Your task to perform on an android device: Is it going to rain this weekend? Image 0: 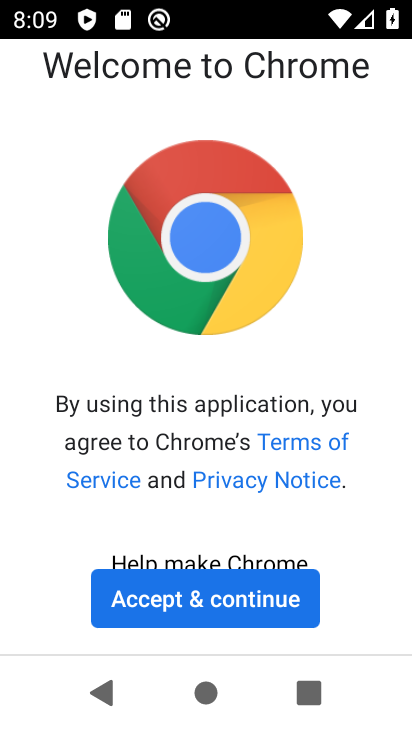
Step 0: click (194, 604)
Your task to perform on an android device: Is it going to rain this weekend? Image 1: 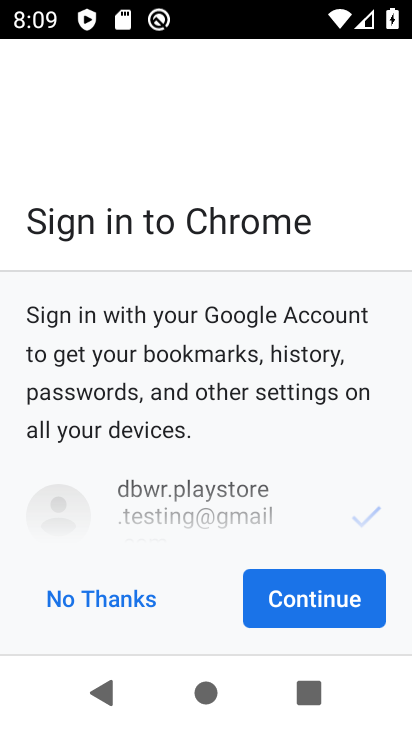
Step 1: click (318, 599)
Your task to perform on an android device: Is it going to rain this weekend? Image 2: 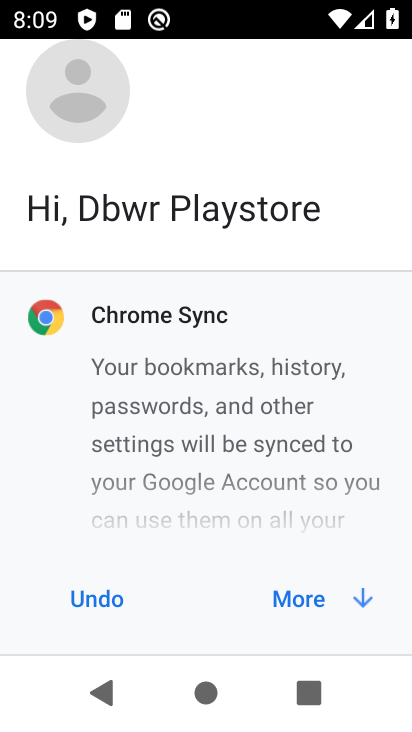
Step 2: click (313, 594)
Your task to perform on an android device: Is it going to rain this weekend? Image 3: 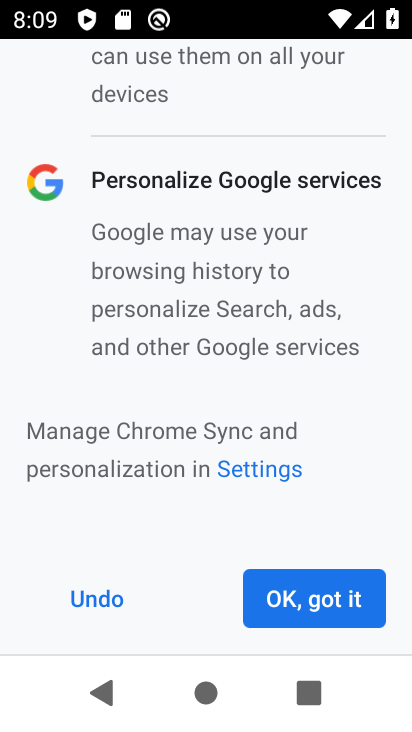
Step 3: click (298, 590)
Your task to perform on an android device: Is it going to rain this weekend? Image 4: 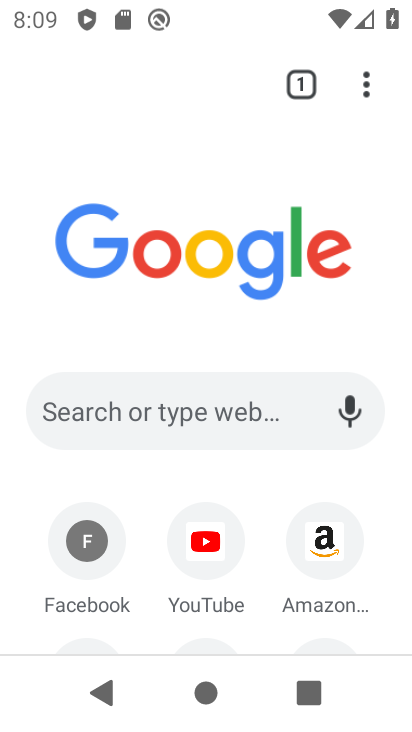
Step 4: click (239, 406)
Your task to perform on an android device: Is it going to rain this weekend? Image 5: 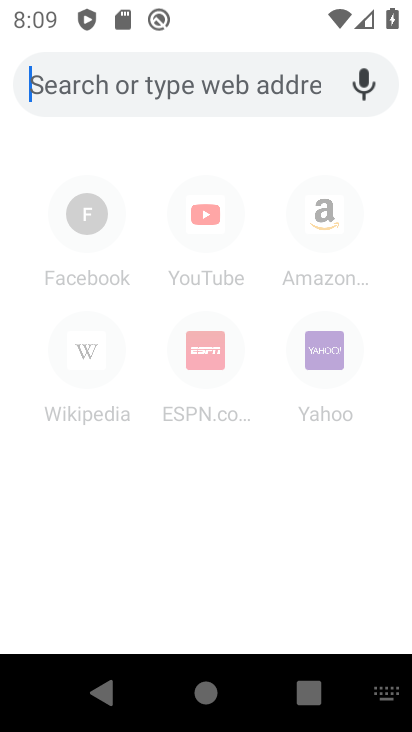
Step 5: type "Is it going to rain this weekend?"
Your task to perform on an android device: Is it going to rain this weekend? Image 6: 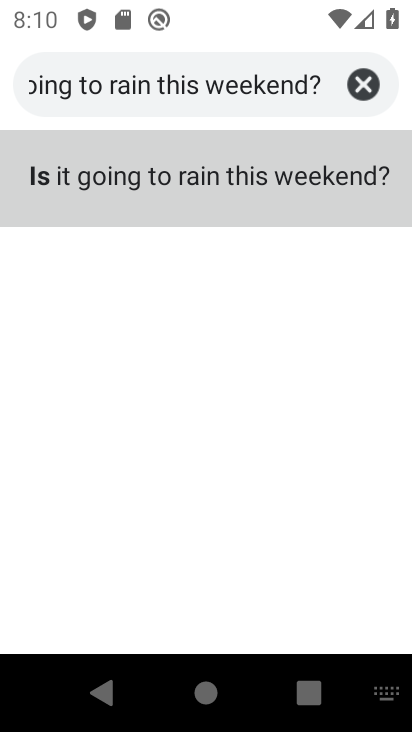
Step 6: click (138, 193)
Your task to perform on an android device: Is it going to rain this weekend? Image 7: 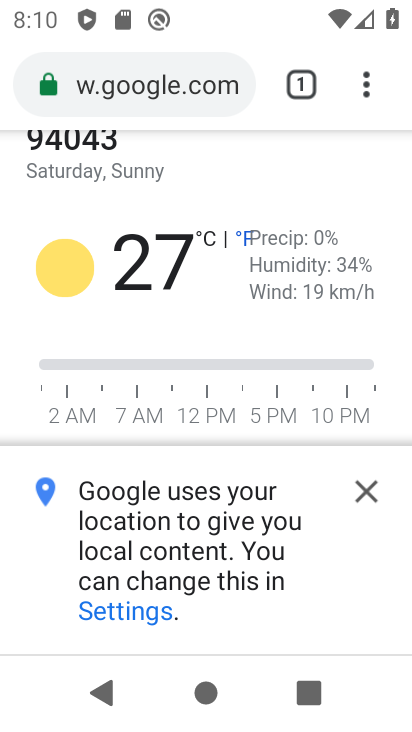
Step 7: task complete